Your task to perform on an android device: toggle data saver in the chrome app Image 0: 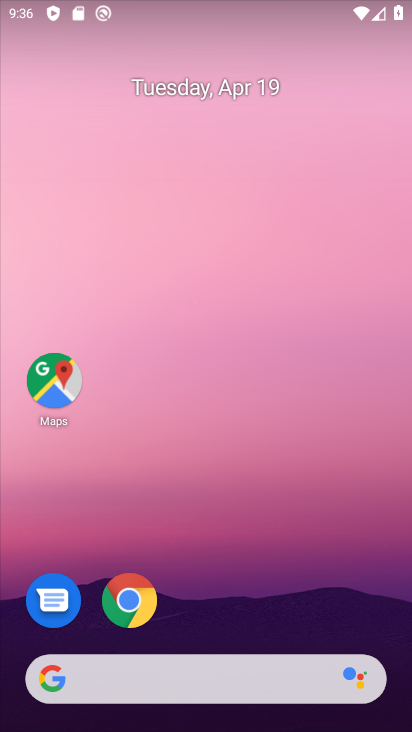
Step 0: drag from (349, 594) to (278, 76)
Your task to perform on an android device: toggle data saver in the chrome app Image 1: 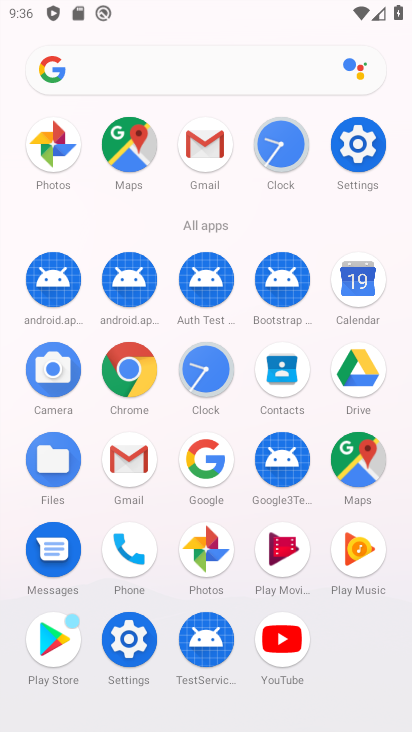
Step 1: click (131, 373)
Your task to perform on an android device: toggle data saver in the chrome app Image 2: 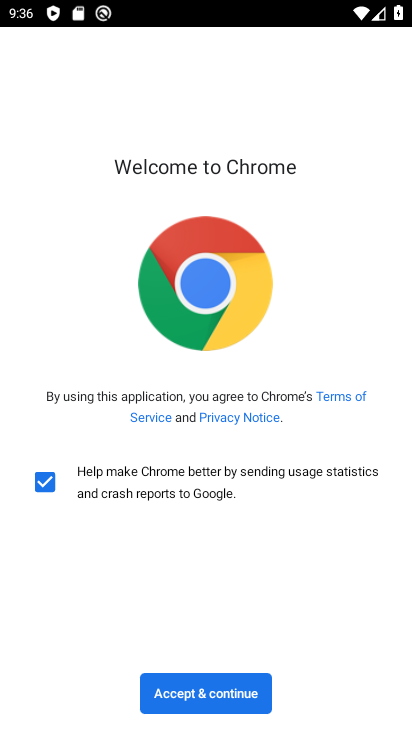
Step 2: click (195, 699)
Your task to perform on an android device: toggle data saver in the chrome app Image 3: 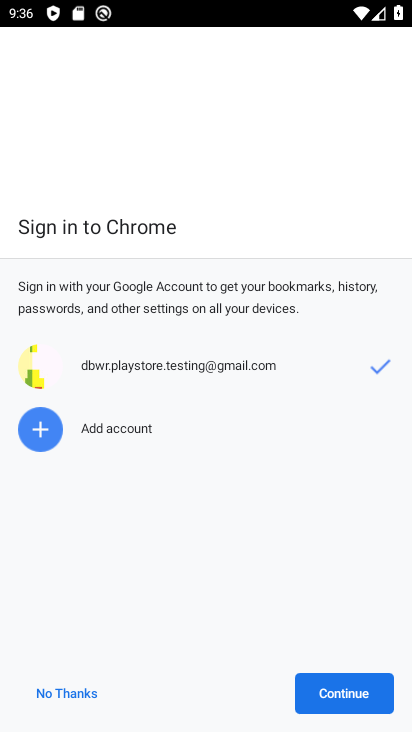
Step 3: click (326, 688)
Your task to perform on an android device: toggle data saver in the chrome app Image 4: 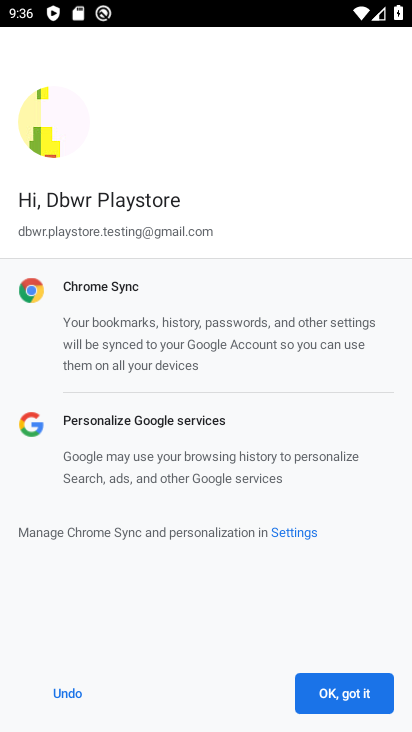
Step 4: click (326, 688)
Your task to perform on an android device: toggle data saver in the chrome app Image 5: 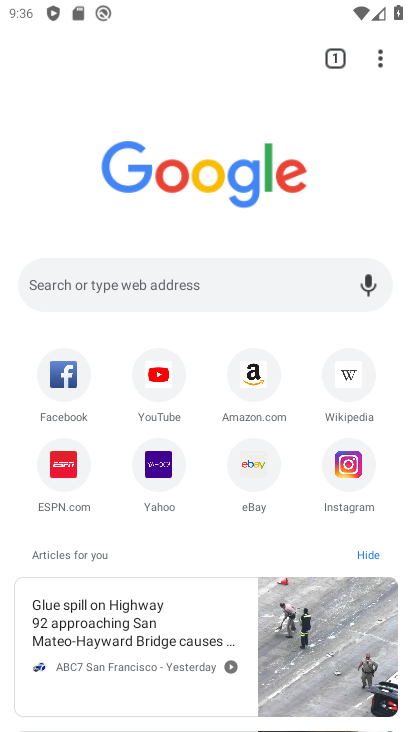
Step 5: click (376, 58)
Your task to perform on an android device: toggle data saver in the chrome app Image 6: 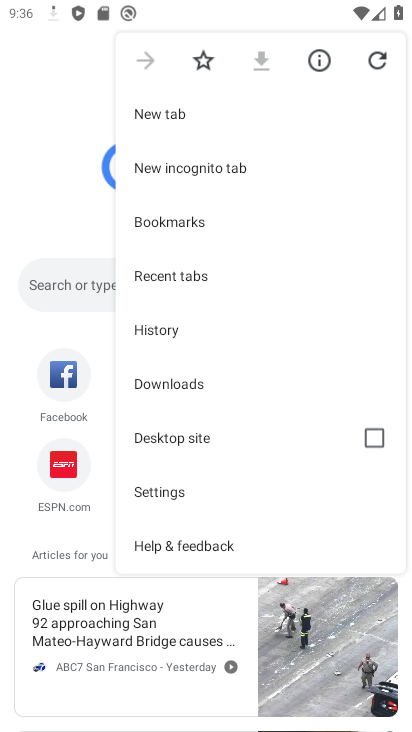
Step 6: click (207, 482)
Your task to perform on an android device: toggle data saver in the chrome app Image 7: 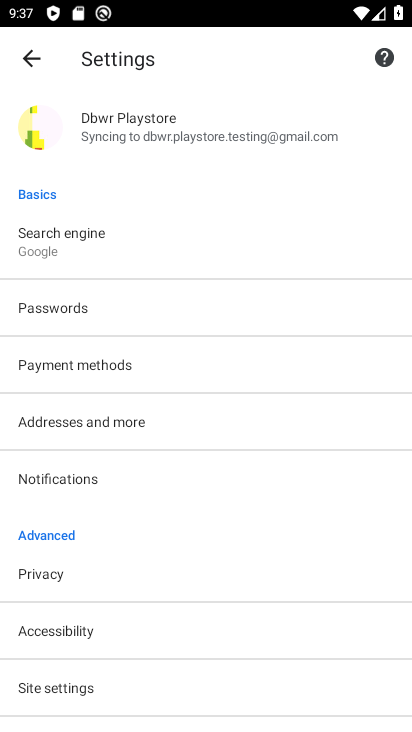
Step 7: drag from (102, 644) to (185, 196)
Your task to perform on an android device: toggle data saver in the chrome app Image 8: 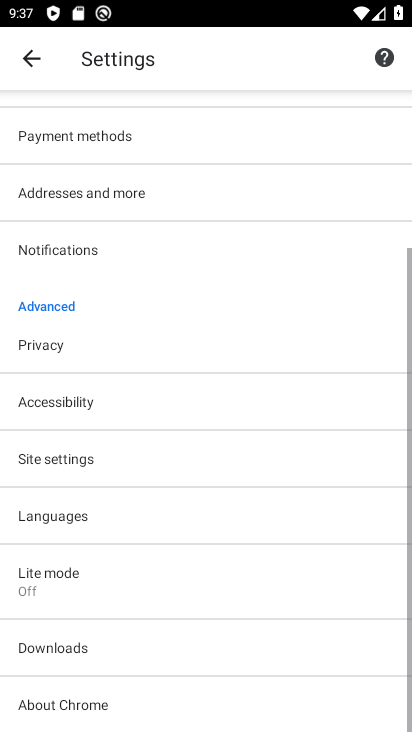
Step 8: click (110, 597)
Your task to perform on an android device: toggle data saver in the chrome app Image 9: 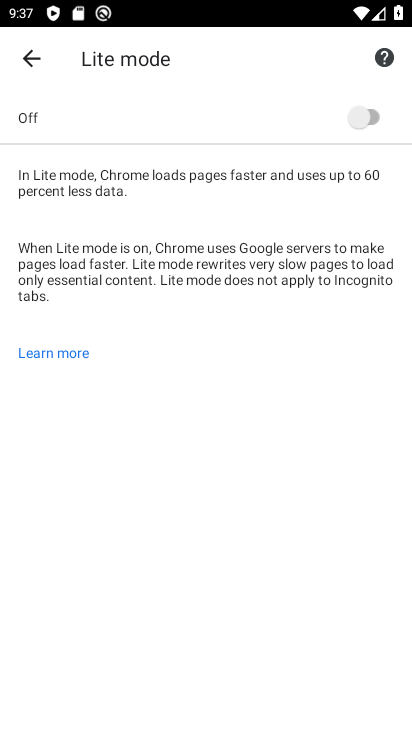
Step 9: click (319, 132)
Your task to perform on an android device: toggle data saver in the chrome app Image 10: 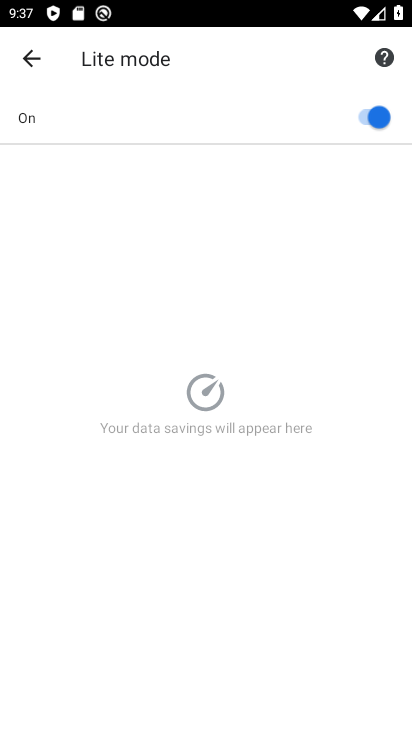
Step 10: task complete